Your task to perform on an android device: add a label to a message in the gmail app Image 0: 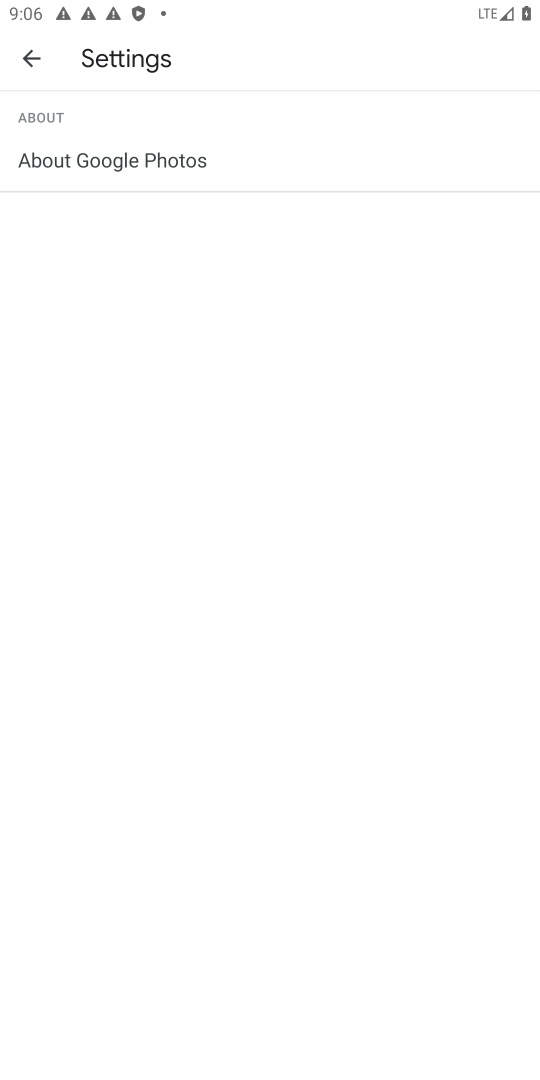
Step 0: press home button
Your task to perform on an android device: add a label to a message in the gmail app Image 1: 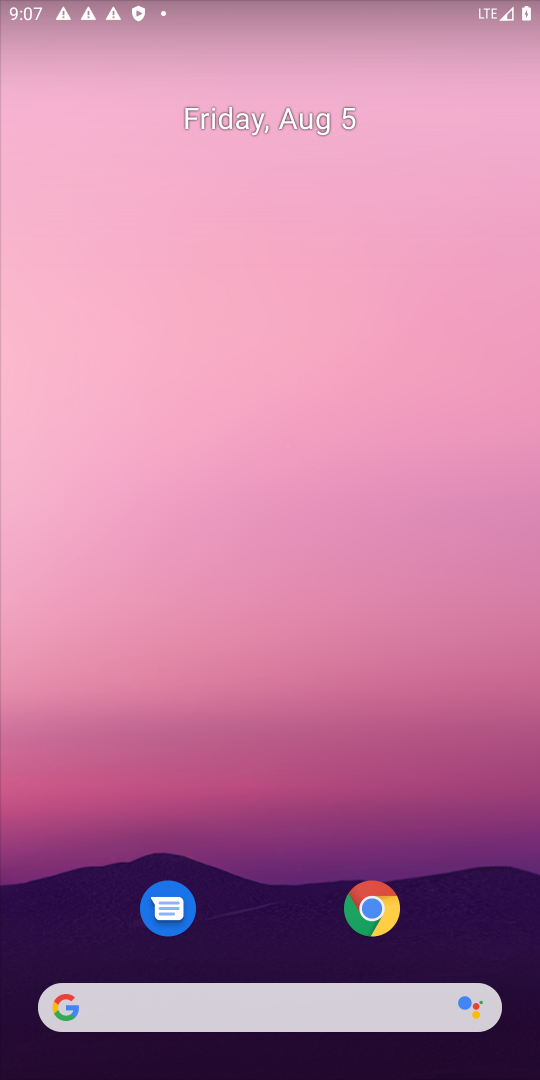
Step 1: drag from (282, 953) to (295, 127)
Your task to perform on an android device: add a label to a message in the gmail app Image 2: 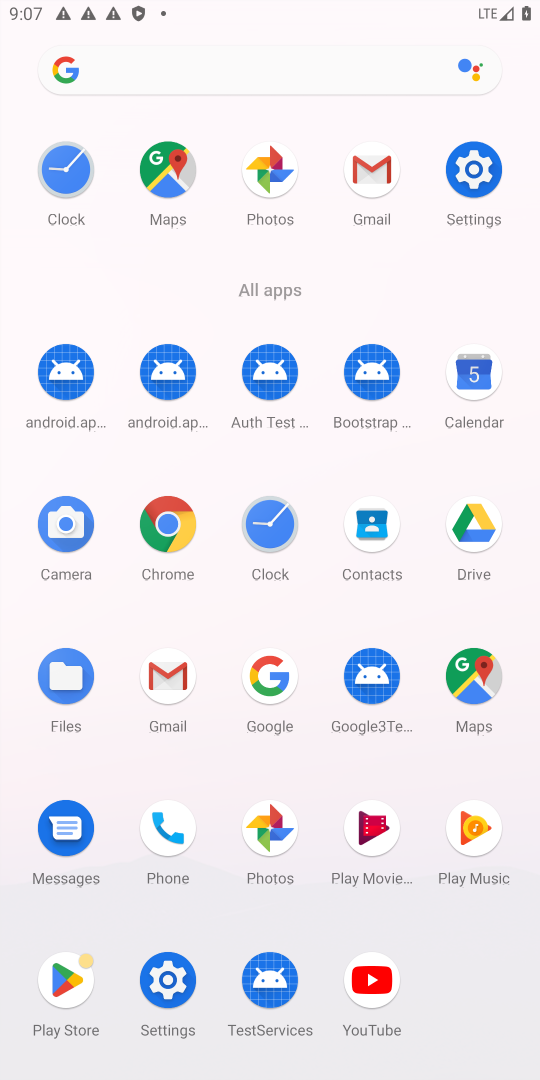
Step 2: click (369, 178)
Your task to perform on an android device: add a label to a message in the gmail app Image 3: 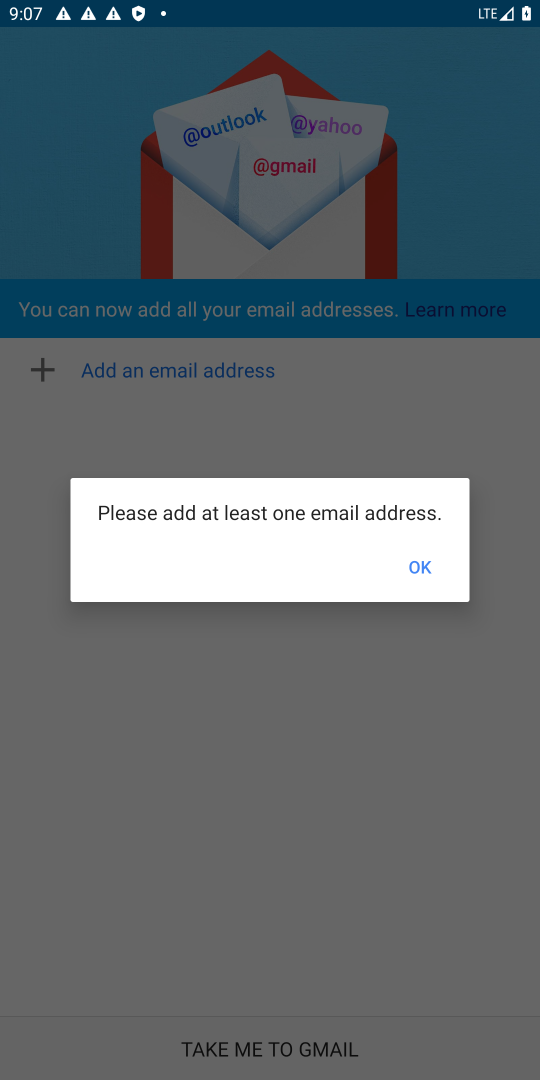
Step 3: click (423, 573)
Your task to perform on an android device: add a label to a message in the gmail app Image 4: 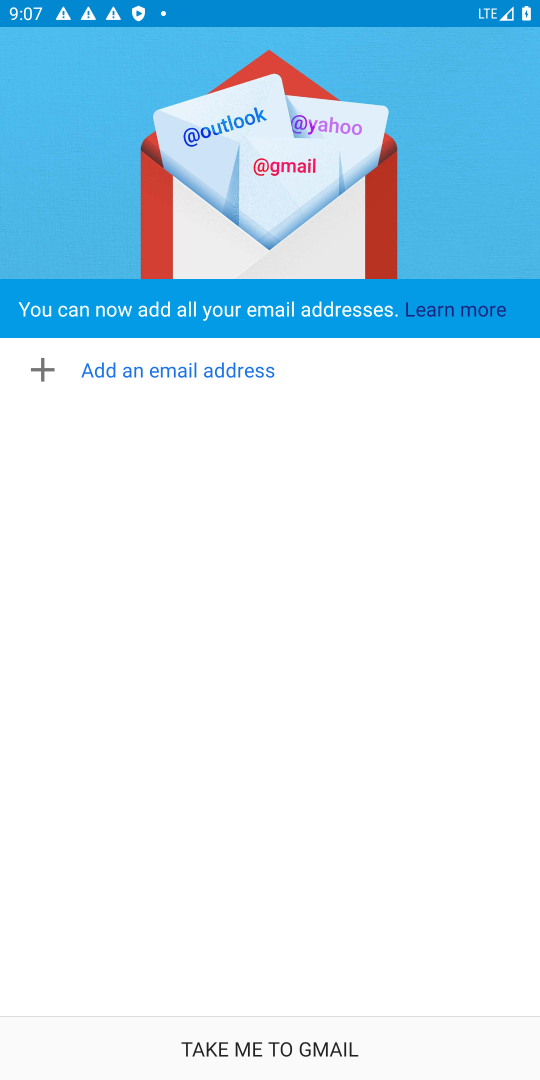
Step 4: task complete